Your task to perform on an android device: all mails in gmail Image 0: 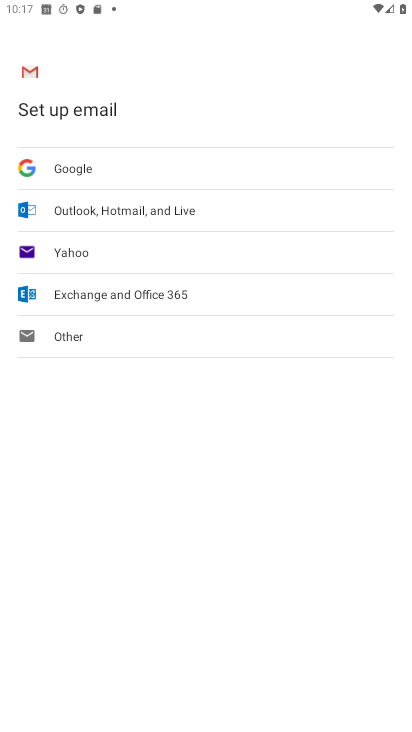
Step 0: drag from (213, 584) to (298, 186)
Your task to perform on an android device: all mails in gmail Image 1: 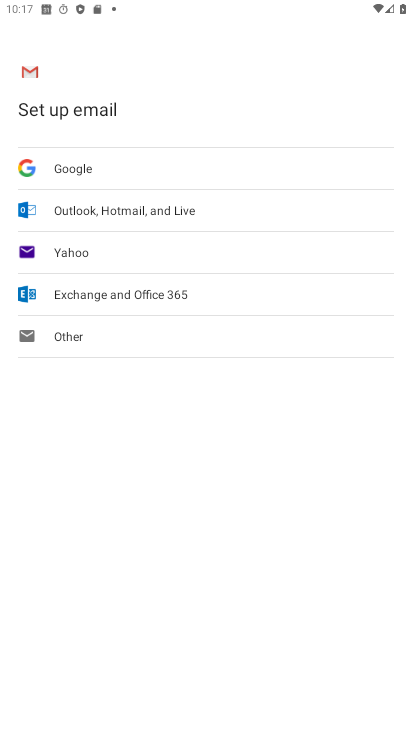
Step 1: click (252, 600)
Your task to perform on an android device: all mails in gmail Image 2: 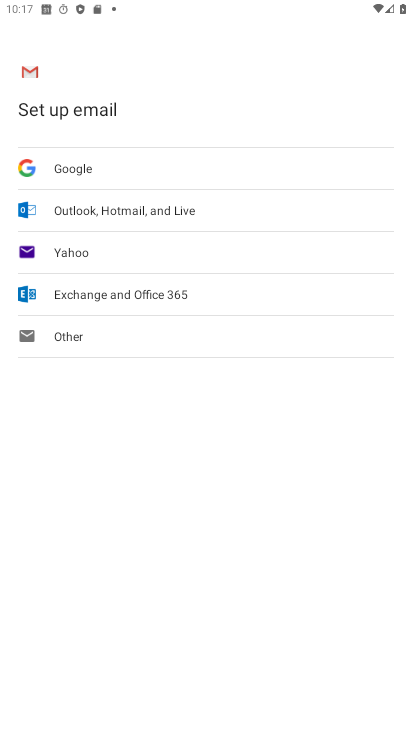
Step 2: press home button
Your task to perform on an android device: all mails in gmail Image 3: 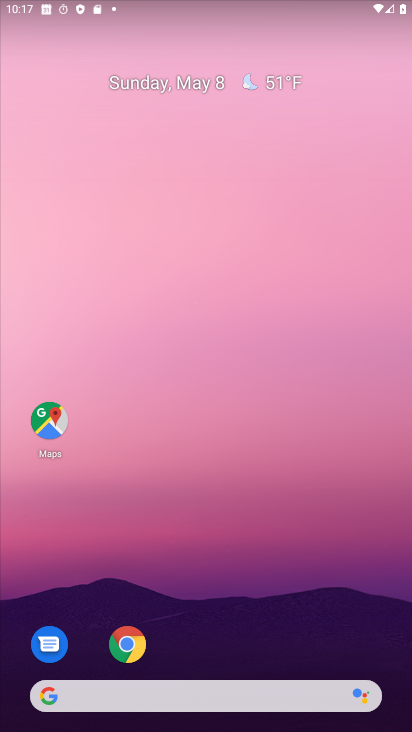
Step 3: drag from (220, 640) to (227, 142)
Your task to perform on an android device: all mails in gmail Image 4: 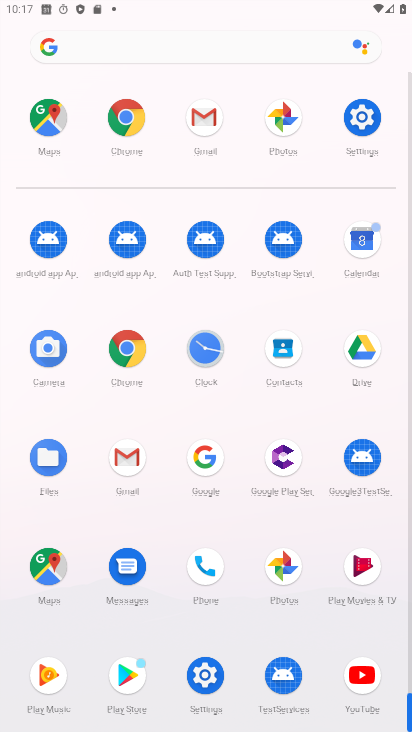
Step 4: click (145, 468)
Your task to perform on an android device: all mails in gmail Image 5: 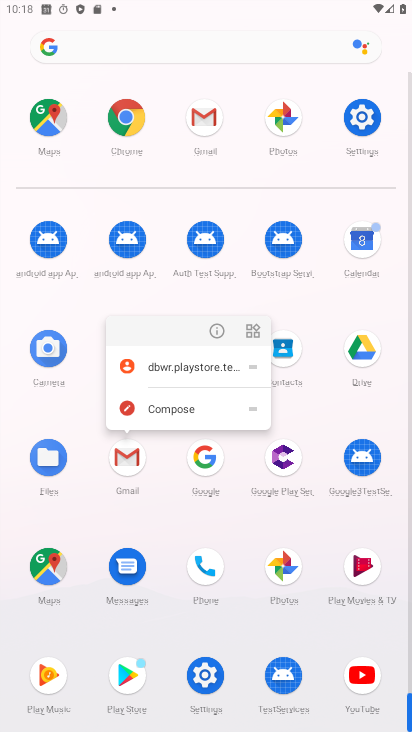
Step 5: click (201, 362)
Your task to perform on an android device: all mails in gmail Image 6: 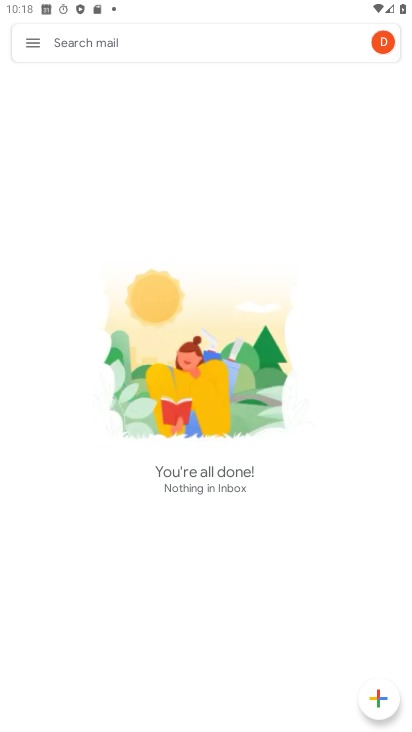
Step 6: click (32, 45)
Your task to perform on an android device: all mails in gmail Image 7: 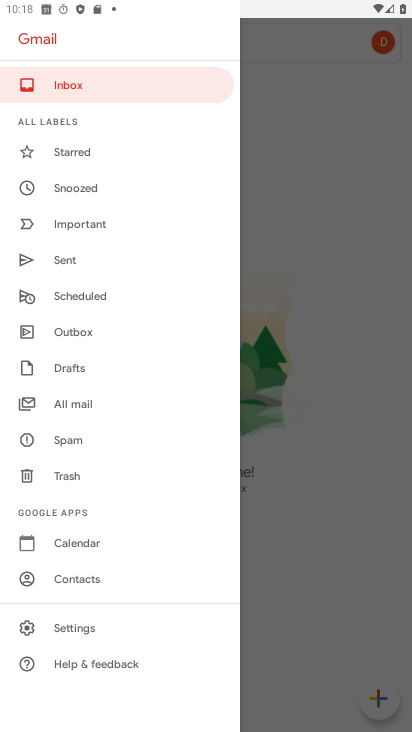
Step 7: click (88, 400)
Your task to perform on an android device: all mails in gmail Image 8: 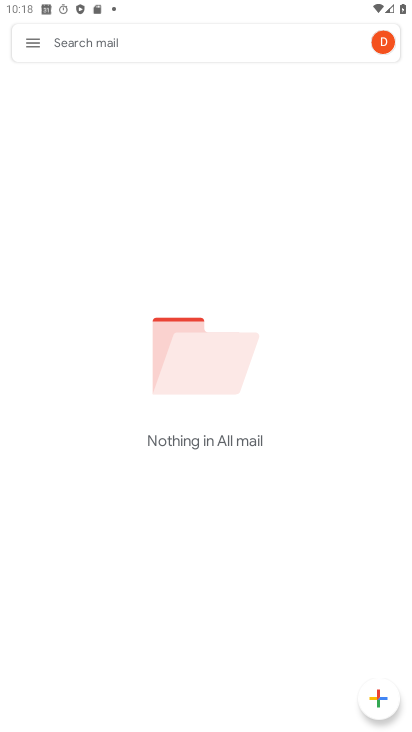
Step 8: task complete